Your task to perform on an android device: Open Maps and search for coffee Image 0: 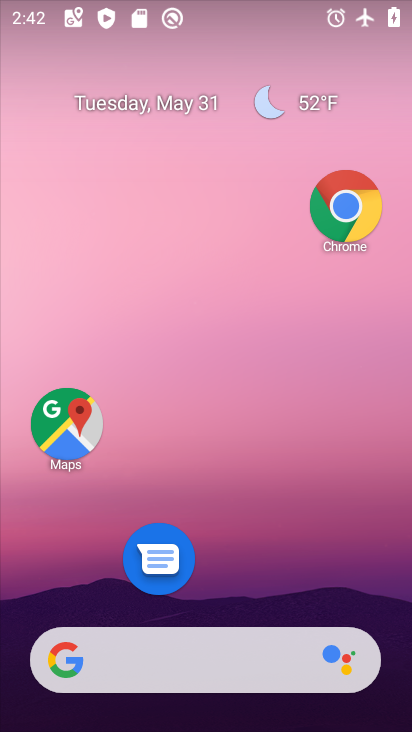
Step 0: drag from (224, 530) to (244, 104)
Your task to perform on an android device: Open Maps and search for coffee Image 1: 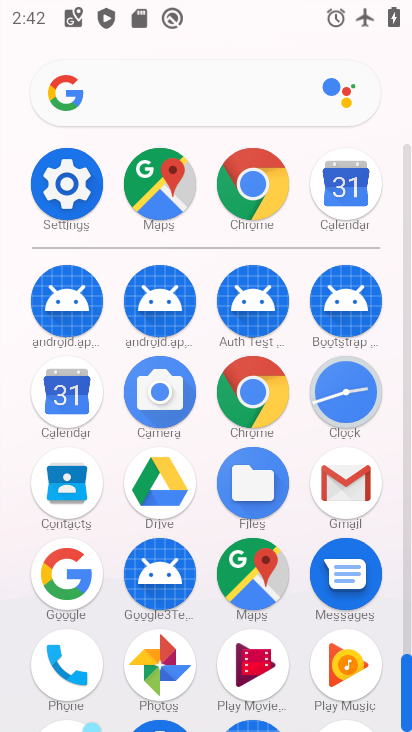
Step 1: click (254, 565)
Your task to perform on an android device: Open Maps and search for coffee Image 2: 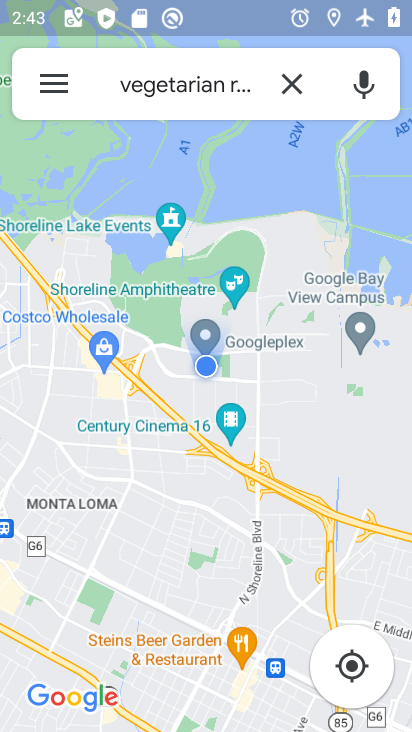
Step 2: click (306, 82)
Your task to perform on an android device: Open Maps and search for coffee Image 3: 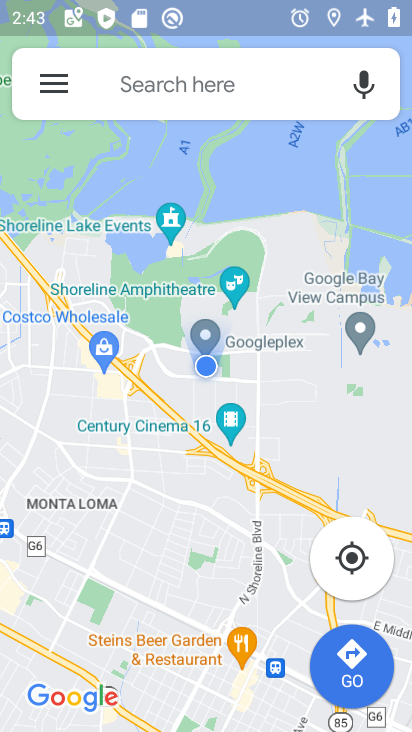
Step 3: click (237, 105)
Your task to perform on an android device: Open Maps and search for coffee Image 4: 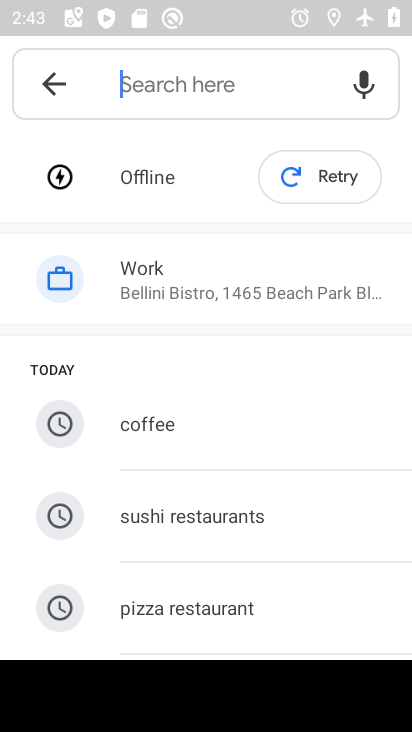
Step 4: click (229, 437)
Your task to perform on an android device: Open Maps and search for coffee Image 5: 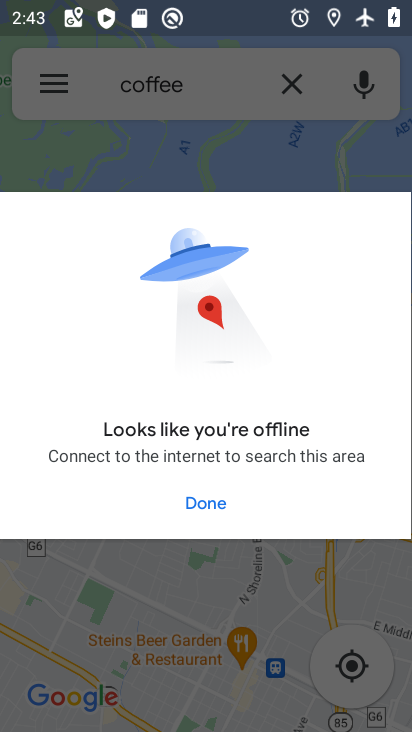
Step 5: task complete